Your task to perform on an android device: open app "Venmo" Image 0: 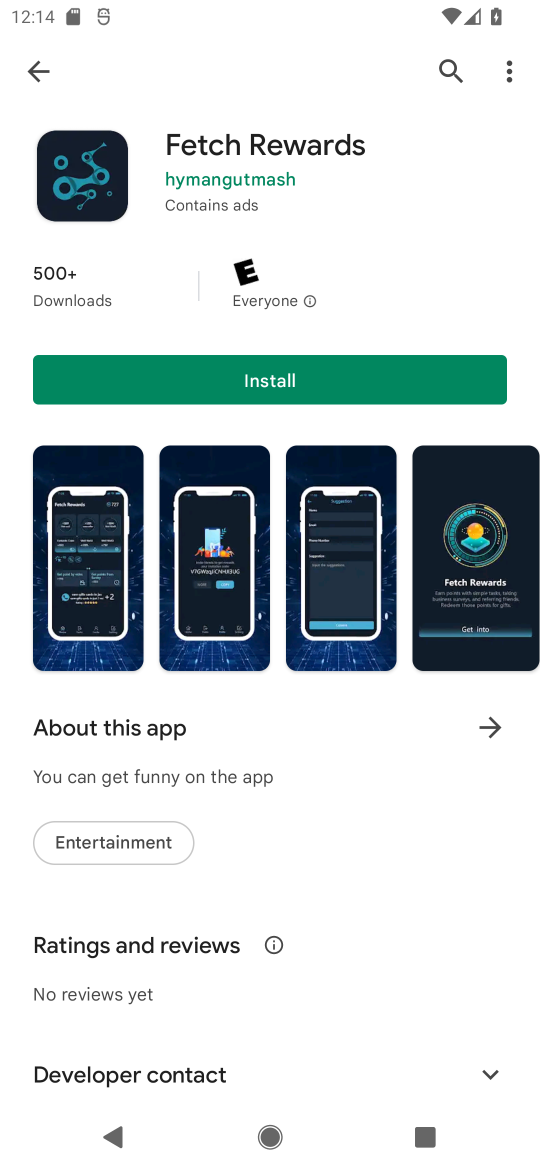
Step 0: click (452, 62)
Your task to perform on an android device: open app "Venmo" Image 1: 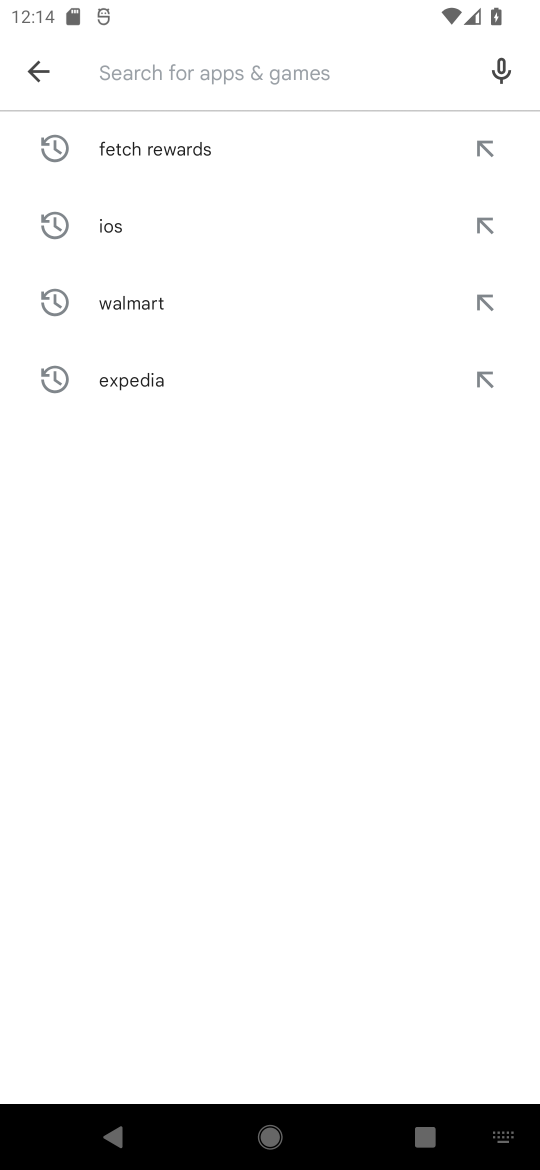
Step 1: click (286, 74)
Your task to perform on an android device: open app "Venmo" Image 2: 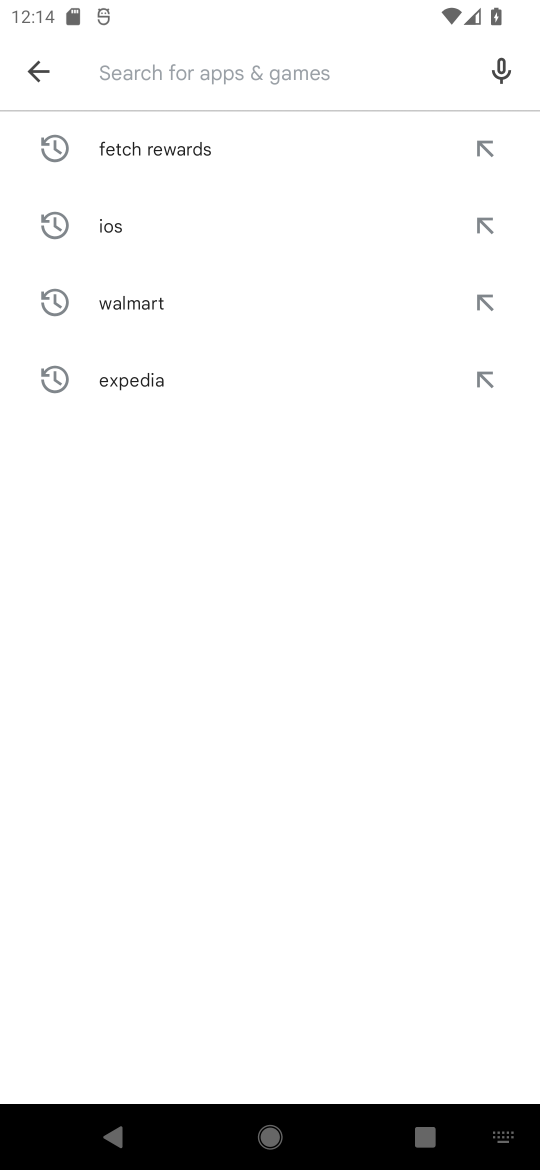
Step 2: type "venmo"
Your task to perform on an android device: open app "Venmo" Image 3: 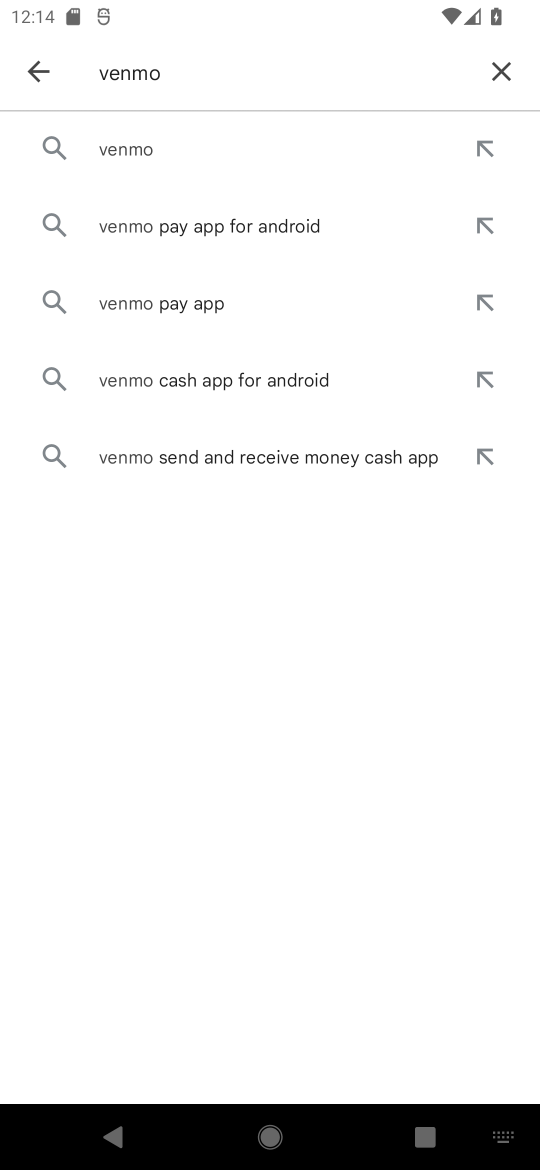
Step 3: click (137, 143)
Your task to perform on an android device: open app "Venmo" Image 4: 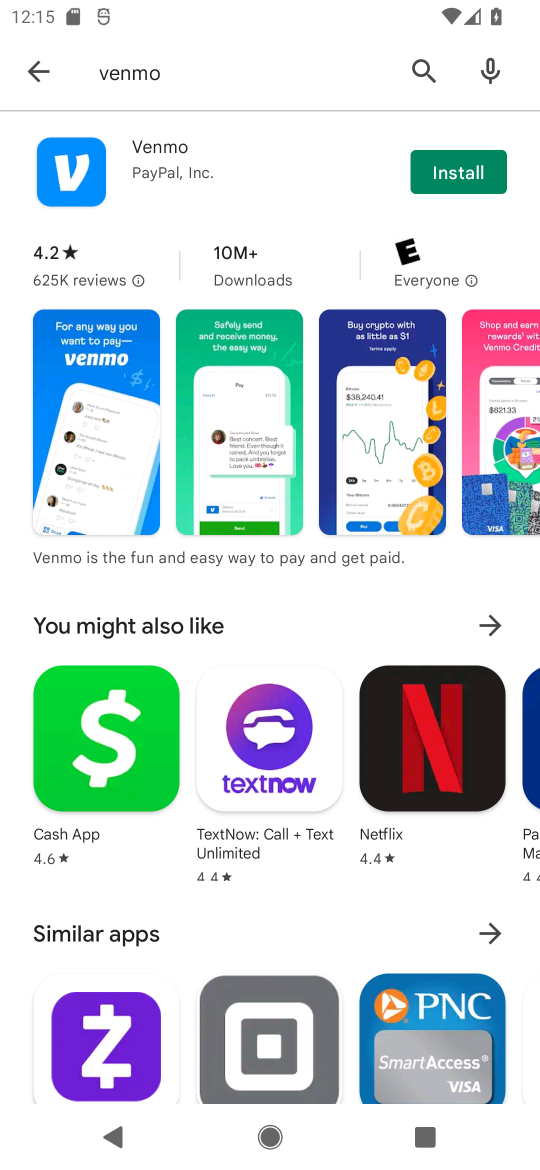
Step 4: task complete